Your task to perform on an android device: toggle airplane mode Image 0: 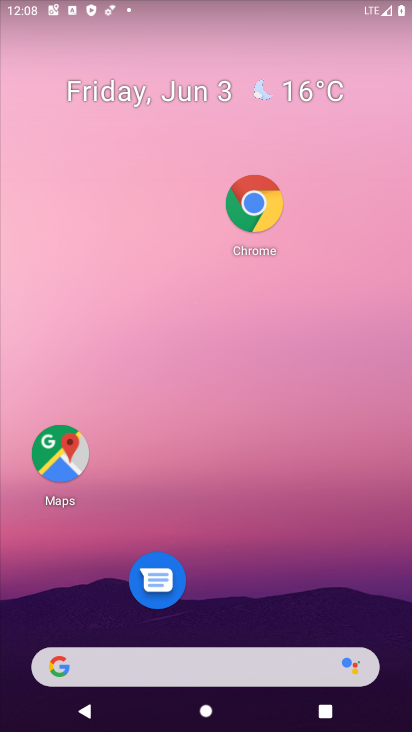
Step 0: drag from (214, 605) to (232, 194)
Your task to perform on an android device: toggle airplane mode Image 1: 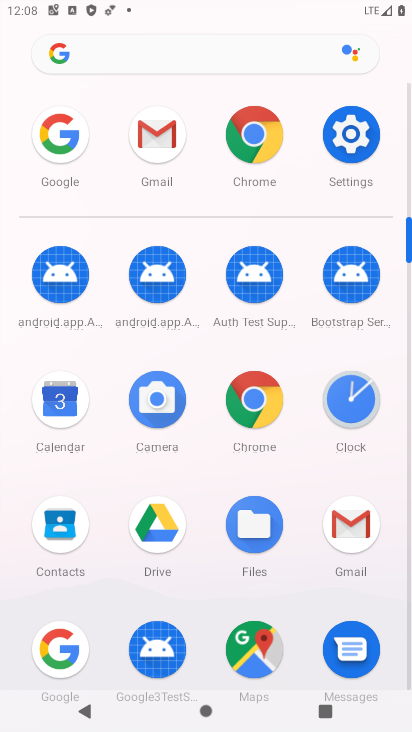
Step 1: click (355, 149)
Your task to perform on an android device: toggle airplane mode Image 2: 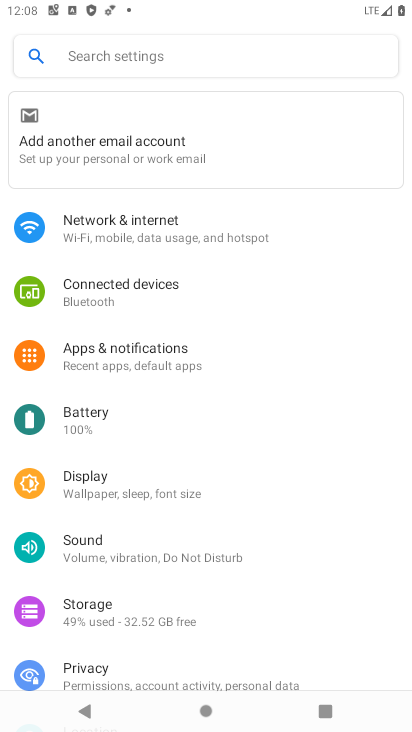
Step 2: click (262, 228)
Your task to perform on an android device: toggle airplane mode Image 3: 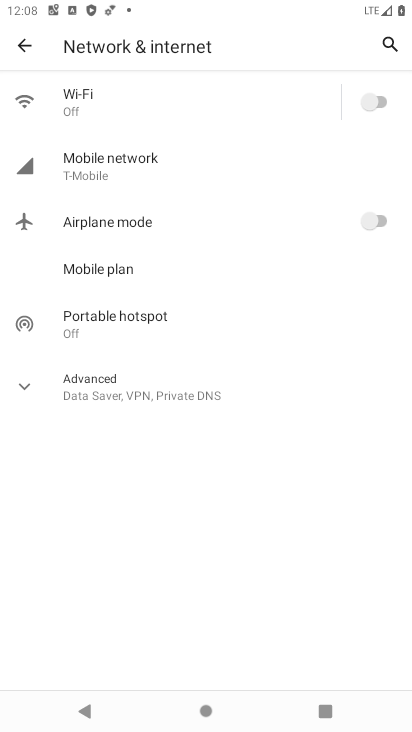
Step 3: click (242, 228)
Your task to perform on an android device: toggle airplane mode Image 4: 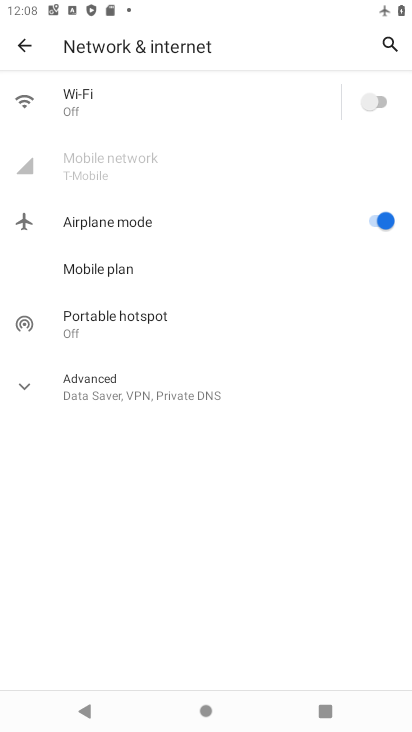
Step 4: task complete